Your task to perform on an android device: turn off data saver in the chrome app Image 0: 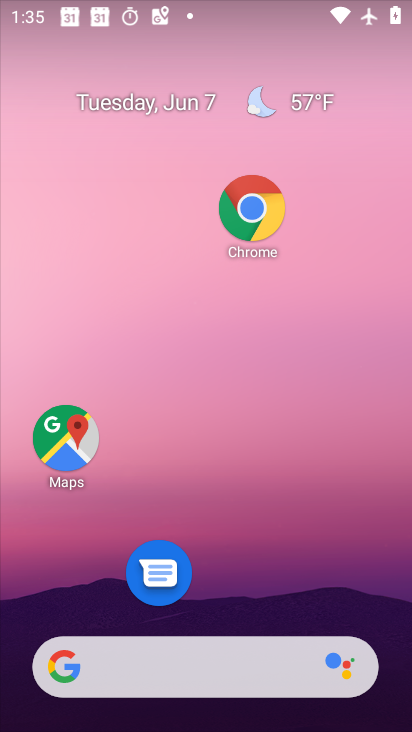
Step 0: click (258, 226)
Your task to perform on an android device: turn off data saver in the chrome app Image 1: 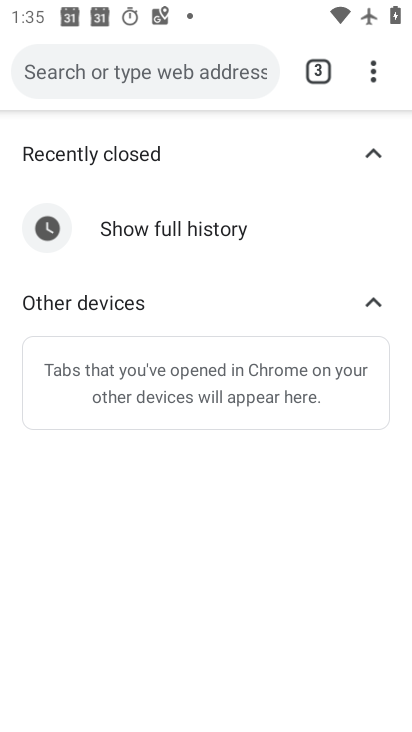
Step 1: drag from (370, 72) to (156, 578)
Your task to perform on an android device: turn off data saver in the chrome app Image 2: 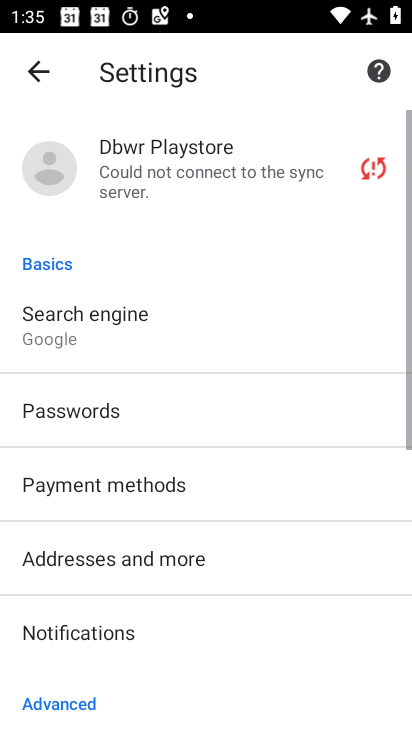
Step 2: drag from (190, 606) to (193, 406)
Your task to perform on an android device: turn off data saver in the chrome app Image 3: 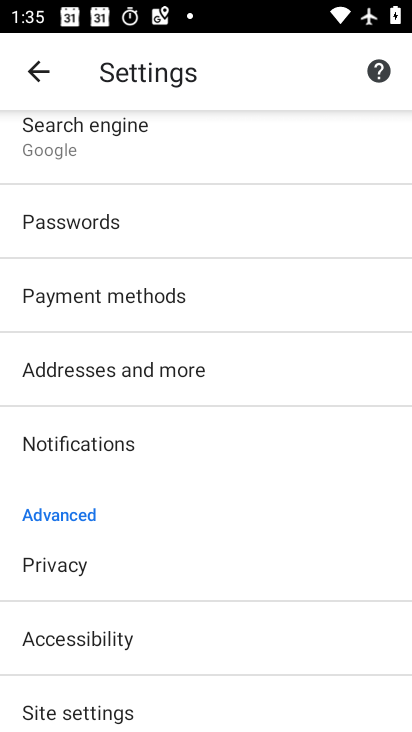
Step 3: drag from (150, 633) to (223, 368)
Your task to perform on an android device: turn off data saver in the chrome app Image 4: 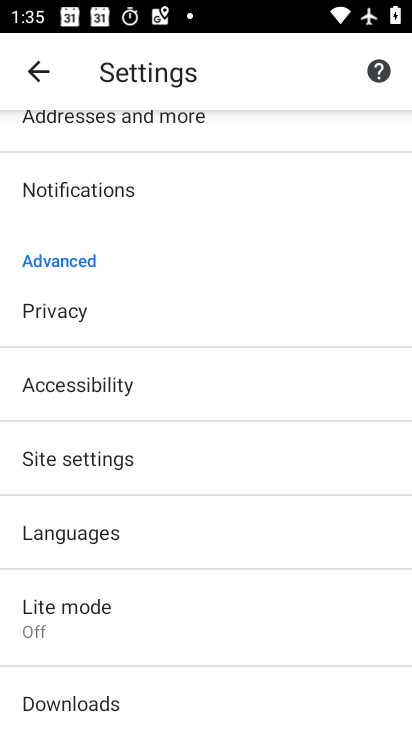
Step 4: click (142, 624)
Your task to perform on an android device: turn off data saver in the chrome app Image 5: 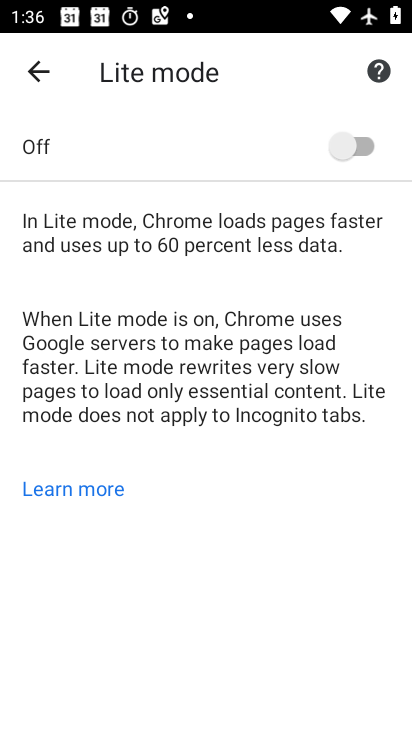
Step 5: task complete